Your task to perform on an android device: read, delete, or share a saved page in the chrome app Image 0: 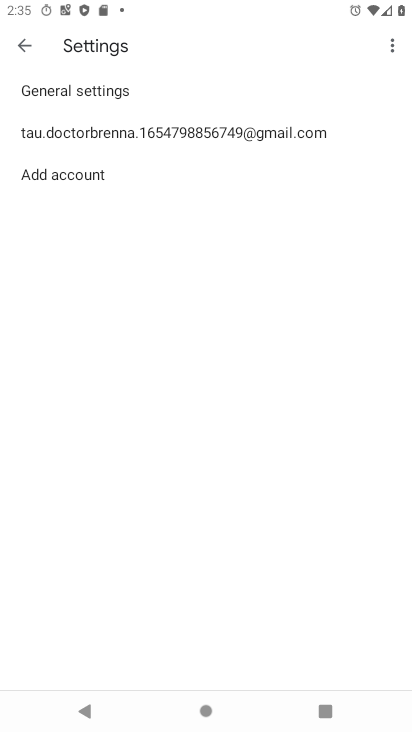
Step 0: press home button
Your task to perform on an android device: read, delete, or share a saved page in the chrome app Image 1: 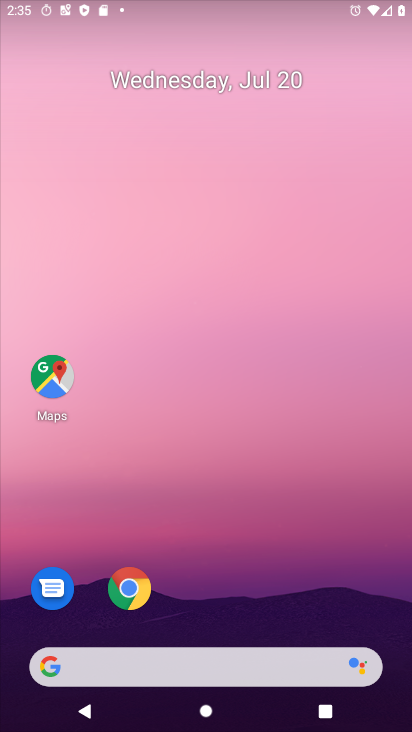
Step 1: drag from (287, 505) to (249, 45)
Your task to perform on an android device: read, delete, or share a saved page in the chrome app Image 2: 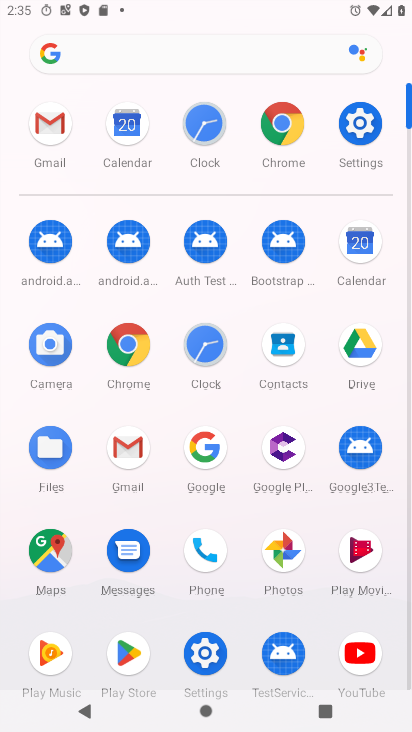
Step 2: click (286, 125)
Your task to perform on an android device: read, delete, or share a saved page in the chrome app Image 3: 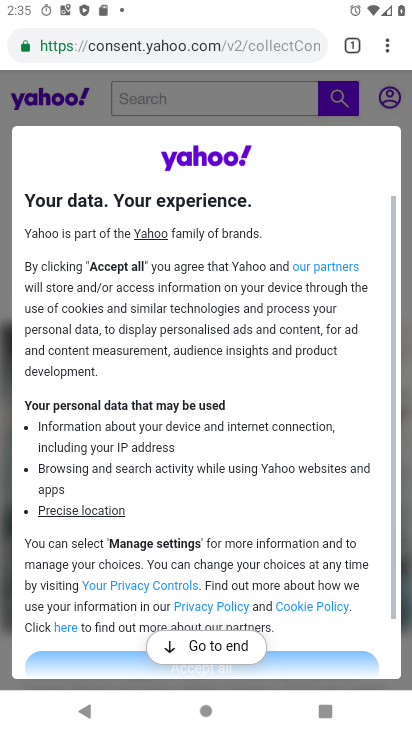
Step 3: task complete